Your task to perform on an android device: make emails show in primary in the gmail app Image 0: 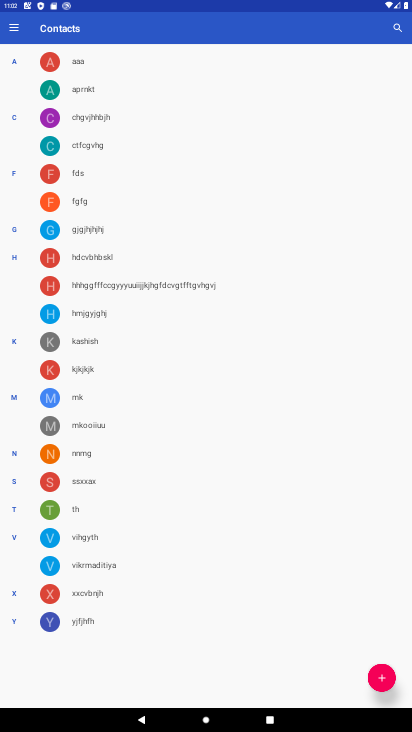
Step 0: task complete